Your task to perform on an android device: Show me productivity apps on the Play Store Image 0: 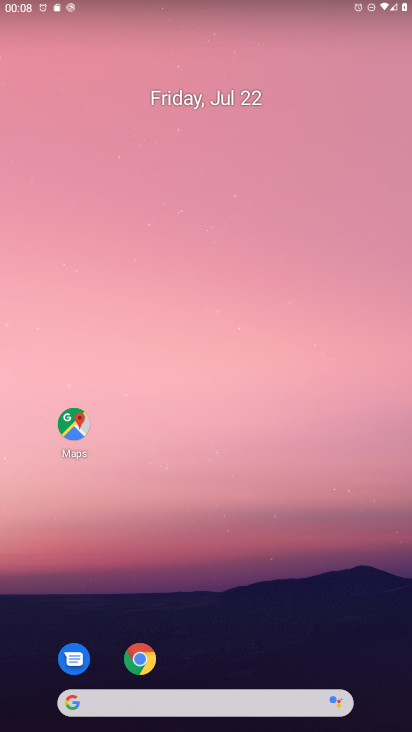
Step 0: drag from (187, 708) to (285, 123)
Your task to perform on an android device: Show me productivity apps on the Play Store Image 1: 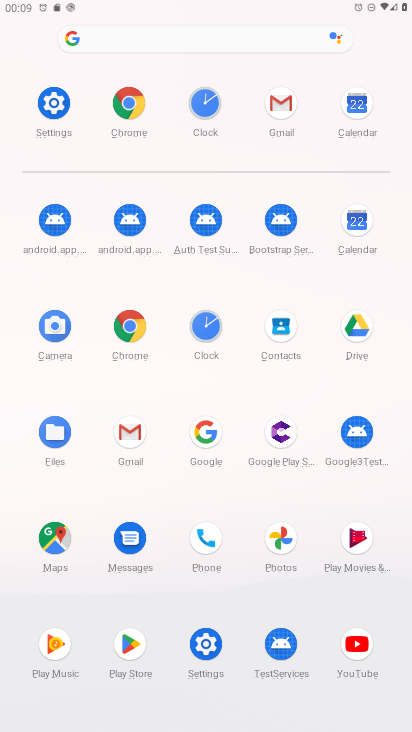
Step 1: click (131, 644)
Your task to perform on an android device: Show me productivity apps on the Play Store Image 2: 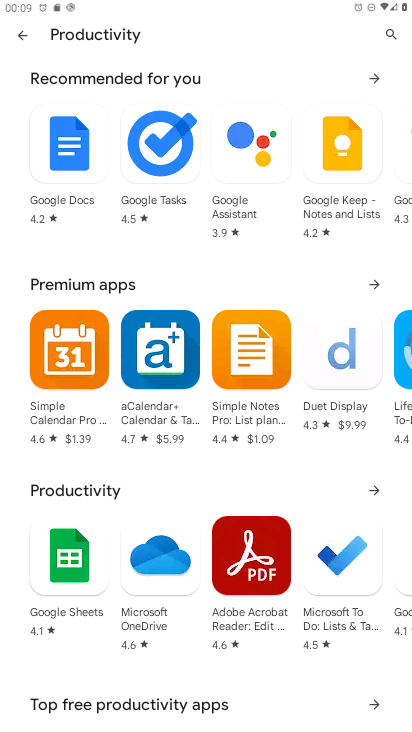
Step 2: task complete